Your task to perform on an android device: Go to battery settings Image 0: 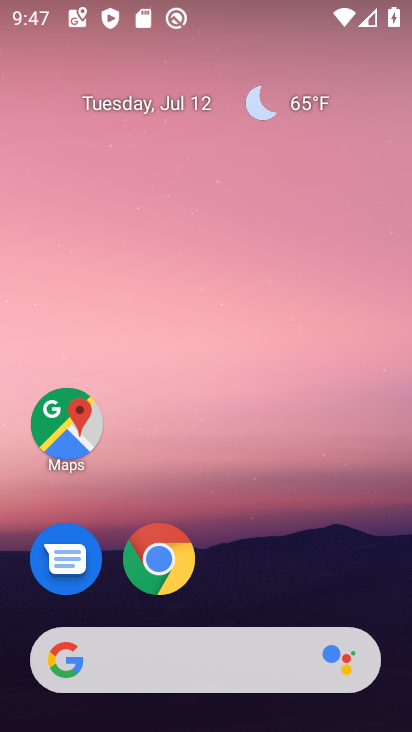
Step 0: drag from (345, 565) to (349, 81)
Your task to perform on an android device: Go to battery settings Image 1: 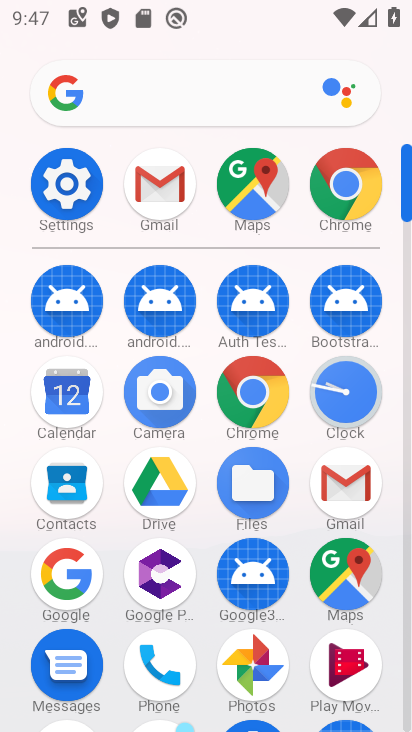
Step 1: click (77, 197)
Your task to perform on an android device: Go to battery settings Image 2: 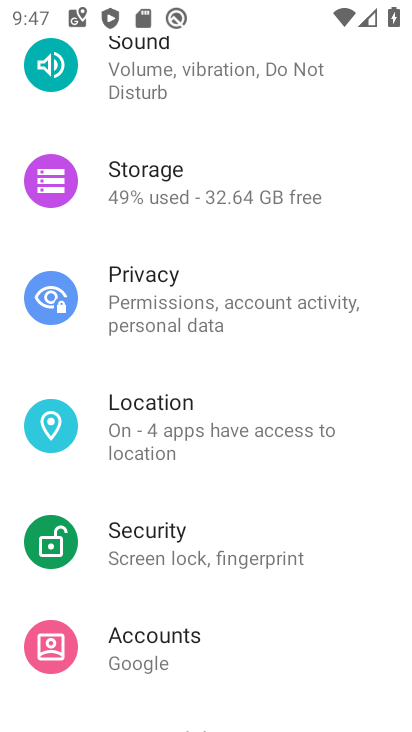
Step 2: drag from (371, 167) to (368, 308)
Your task to perform on an android device: Go to battery settings Image 3: 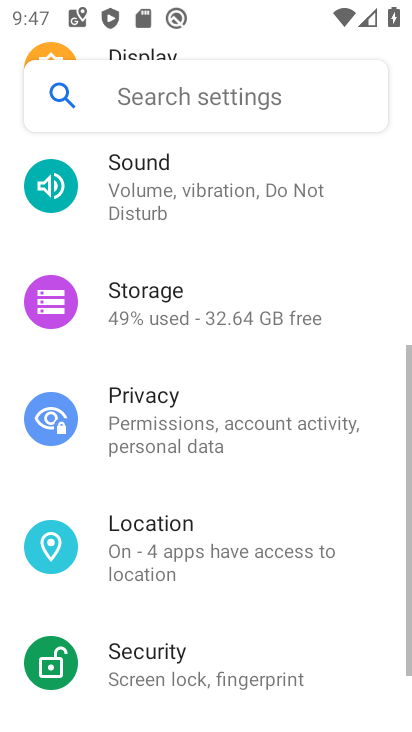
Step 3: drag from (368, 186) to (368, 341)
Your task to perform on an android device: Go to battery settings Image 4: 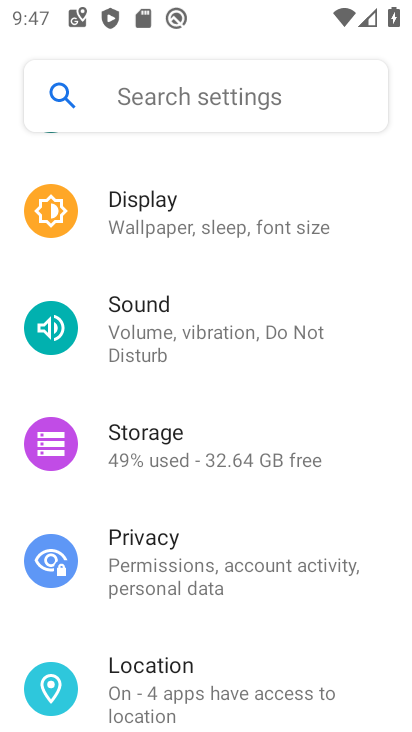
Step 4: drag from (371, 279) to (368, 398)
Your task to perform on an android device: Go to battery settings Image 5: 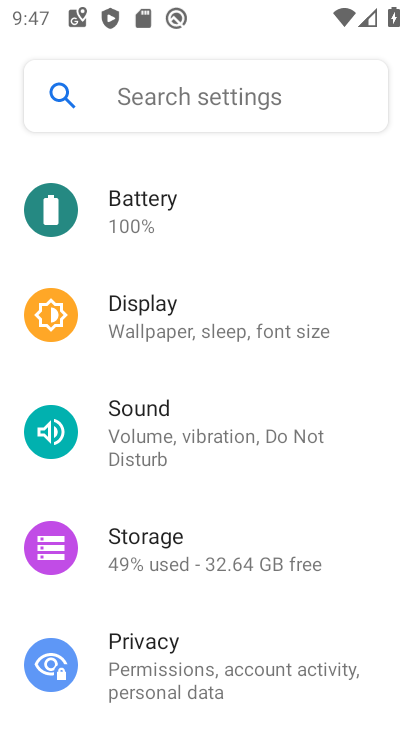
Step 5: drag from (358, 257) to (366, 399)
Your task to perform on an android device: Go to battery settings Image 6: 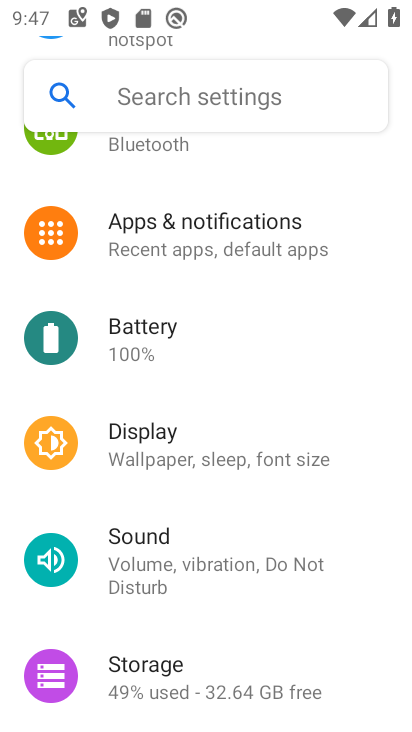
Step 6: drag from (360, 226) to (372, 406)
Your task to perform on an android device: Go to battery settings Image 7: 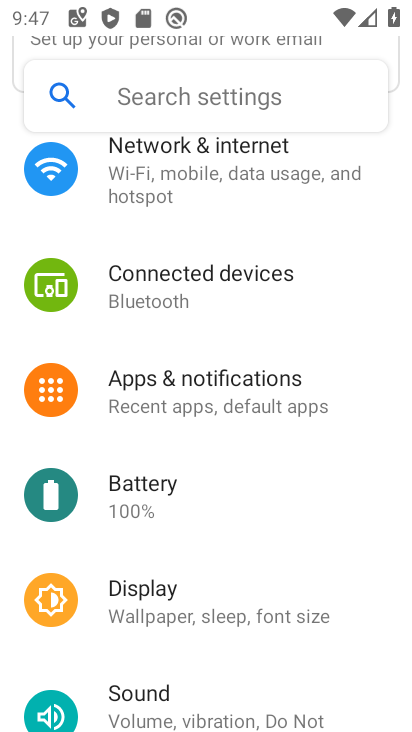
Step 7: drag from (375, 175) to (371, 385)
Your task to perform on an android device: Go to battery settings Image 8: 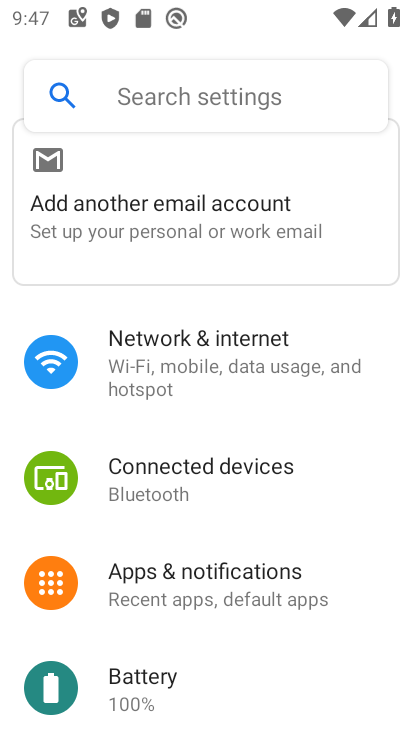
Step 8: drag from (347, 526) to (347, 375)
Your task to perform on an android device: Go to battery settings Image 9: 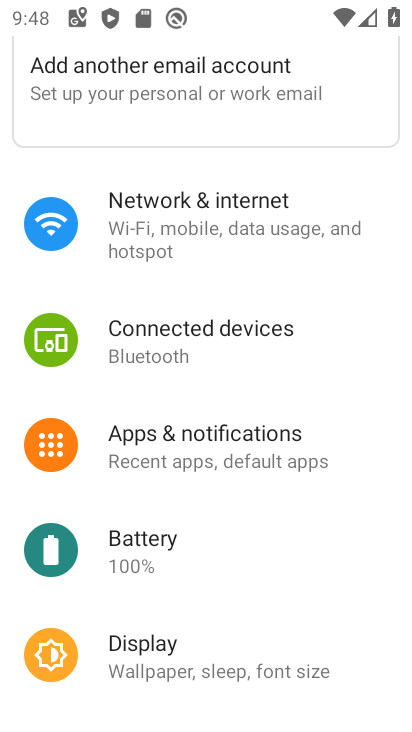
Step 9: drag from (358, 540) to (358, 426)
Your task to perform on an android device: Go to battery settings Image 10: 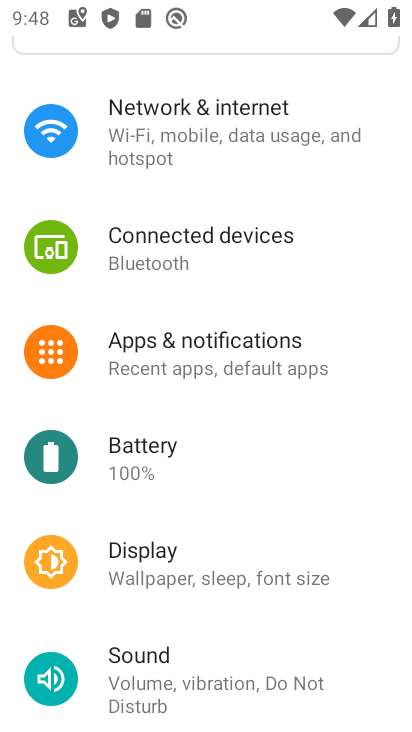
Step 10: click (172, 452)
Your task to perform on an android device: Go to battery settings Image 11: 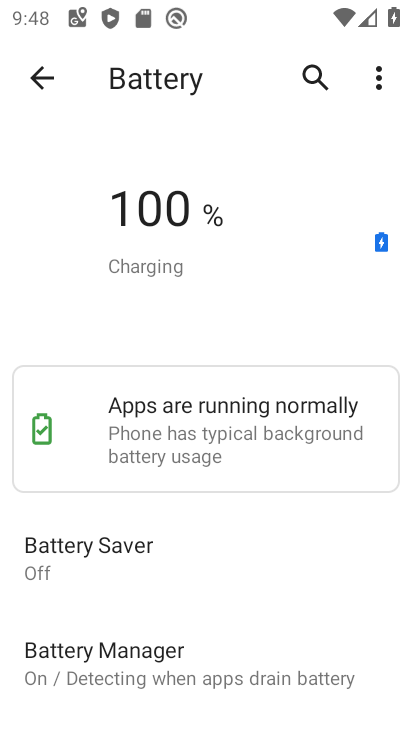
Step 11: task complete